Your task to perform on an android device: How big is the universe? Image 0: 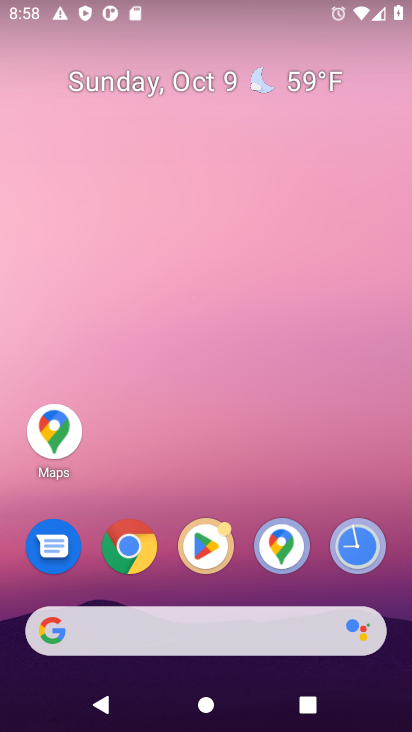
Step 0: click (128, 557)
Your task to perform on an android device: How big is the universe? Image 1: 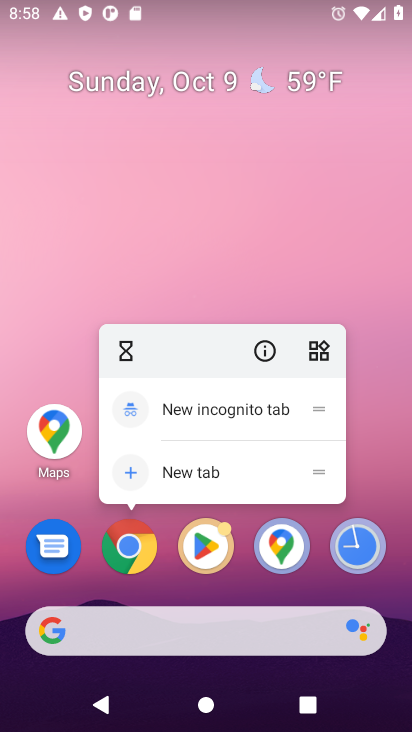
Step 1: click (128, 557)
Your task to perform on an android device: How big is the universe? Image 2: 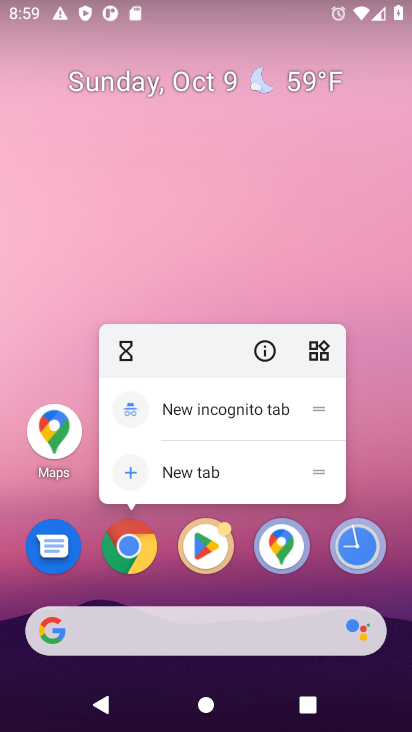
Step 2: click (128, 556)
Your task to perform on an android device: How big is the universe? Image 3: 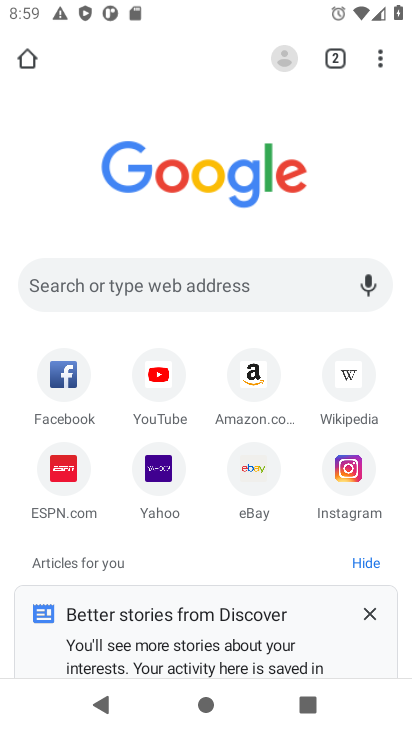
Step 3: click (125, 290)
Your task to perform on an android device: How big is the universe? Image 4: 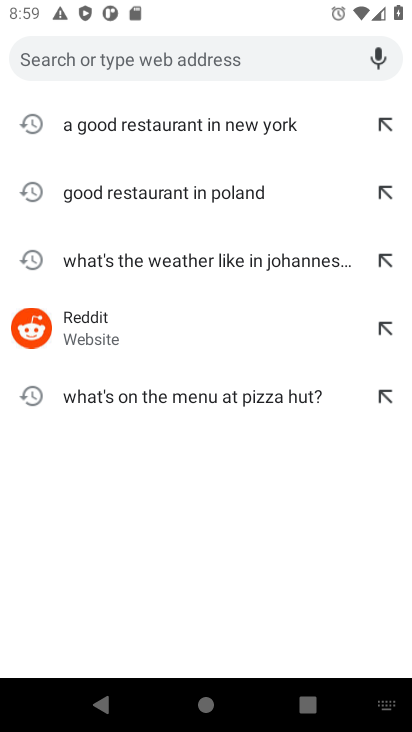
Step 4: task complete